Your task to perform on an android device: Empty the shopping cart on amazon.com. Add razer huntsman to the cart on amazon.com, then select checkout. Image 0: 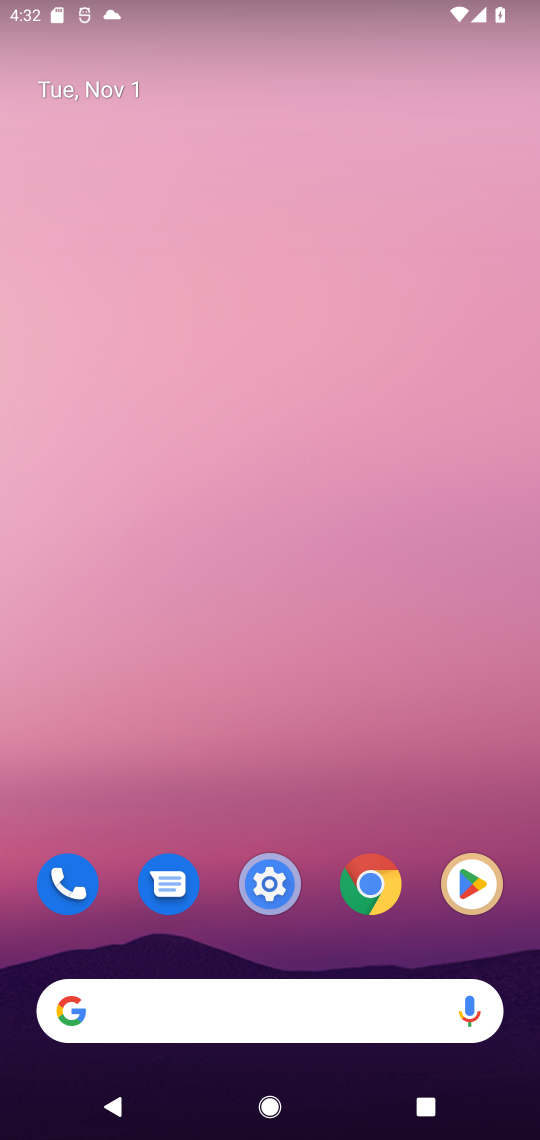
Step 0: click (110, 1014)
Your task to perform on an android device: Empty the shopping cart on amazon.com. Add razer huntsman to the cart on amazon.com, then select checkout. Image 1: 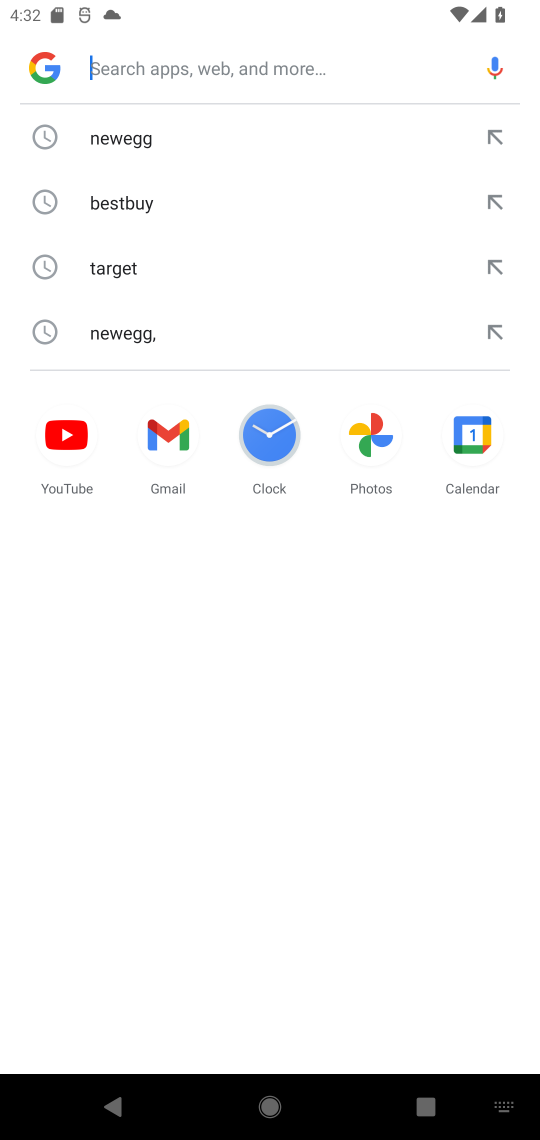
Step 1: type "amazon.com"
Your task to perform on an android device: Empty the shopping cart on amazon.com. Add razer huntsman to the cart on amazon.com, then select checkout. Image 2: 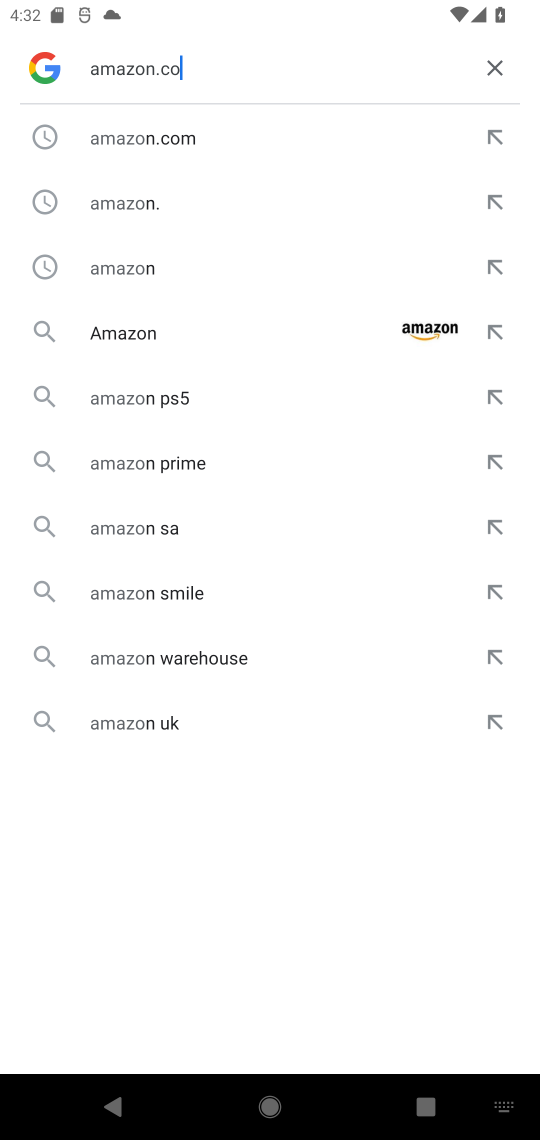
Step 2: press enter
Your task to perform on an android device: Empty the shopping cart on amazon.com. Add razer huntsman to the cart on amazon.com, then select checkout. Image 3: 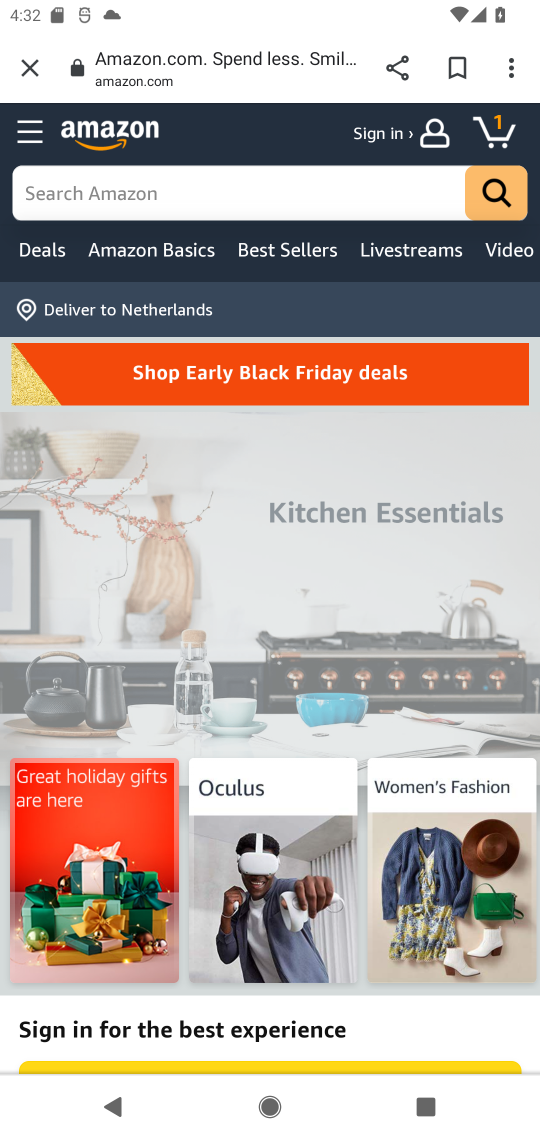
Step 3: click (489, 128)
Your task to perform on an android device: Empty the shopping cart on amazon.com. Add razer huntsman to the cart on amazon.com, then select checkout. Image 4: 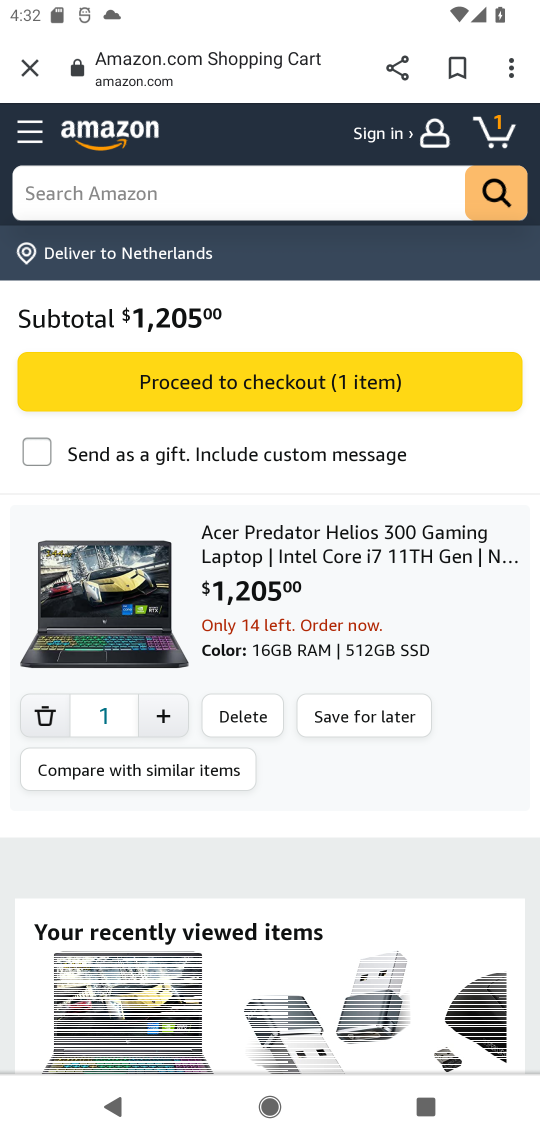
Step 4: click (41, 715)
Your task to perform on an android device: Empty the shopping cart on amazon.com. Add razer huntsman to the cart on amazon.com, then select checkout. Image 5: 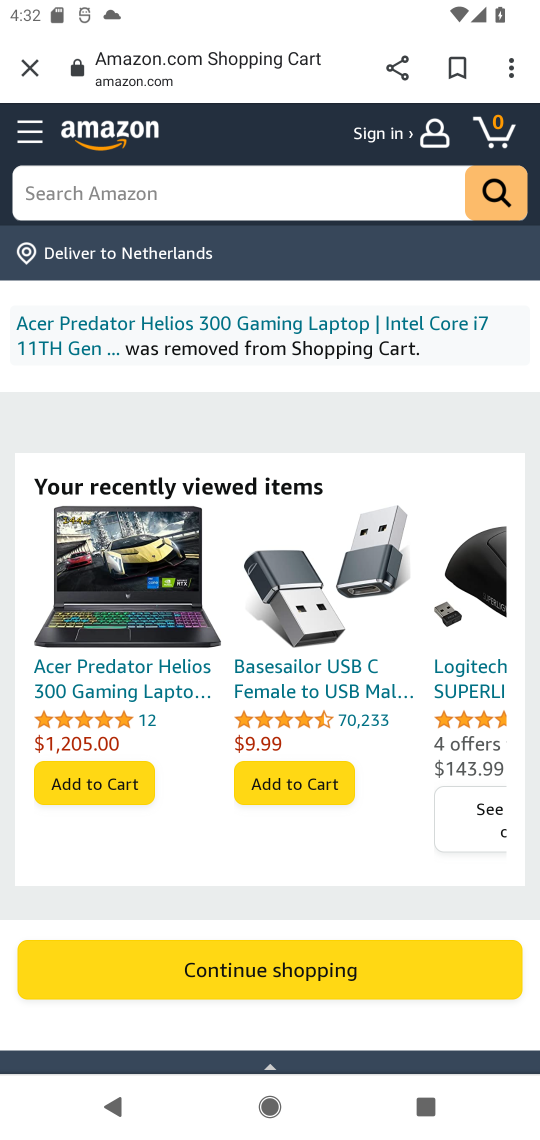
Step 5: click (211, 180)
Your task to perform on an android device: Empty the shopping cart on amazon.com. Add razer huntsman to the cart on amazon.com, then select checkout. Image 6: 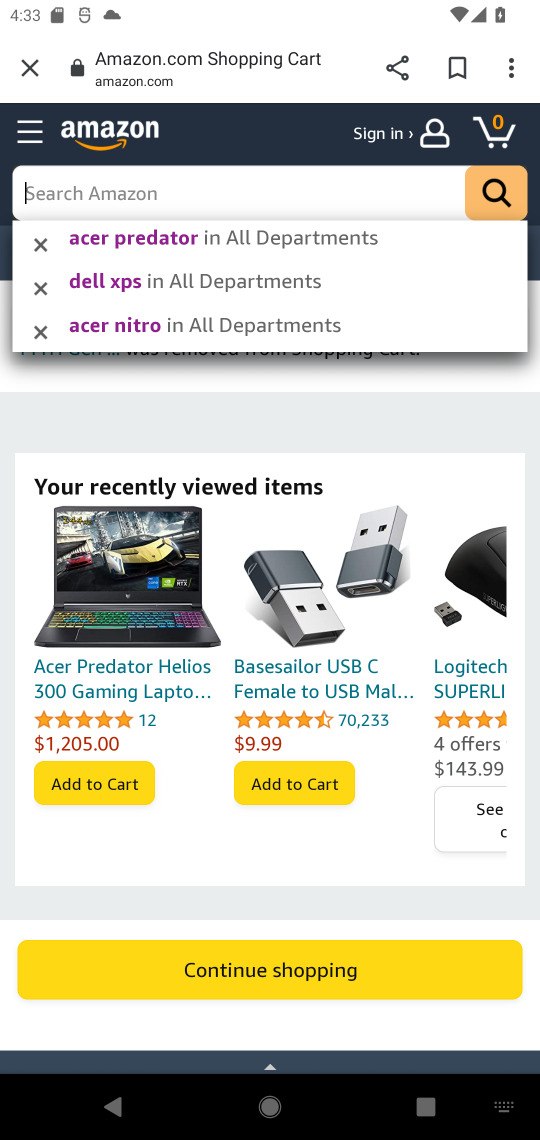
Step 6: type "razer huntsman"
Your task to perform on an android device: Empty the shopping cart on amazon.com. Add razer huntsman to the cart on amazon.com, then select checkout. Image 7: 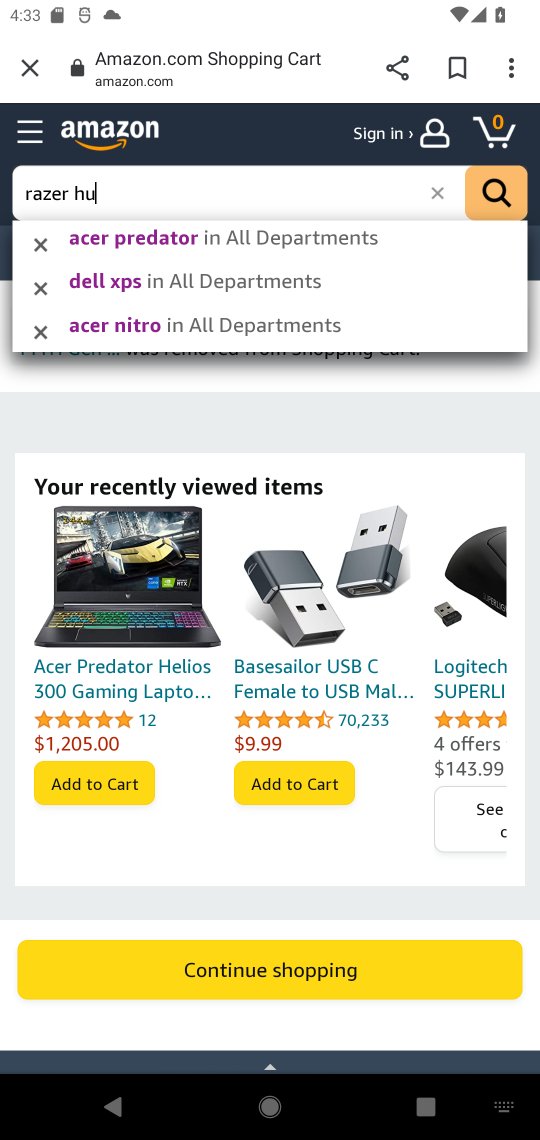
Step 7: press enter
Your task to perform on an android device: Empty the shopping cart on amazon.com. Add razer huntsman to the cart on amazon.com, then select checkout. Image 8: 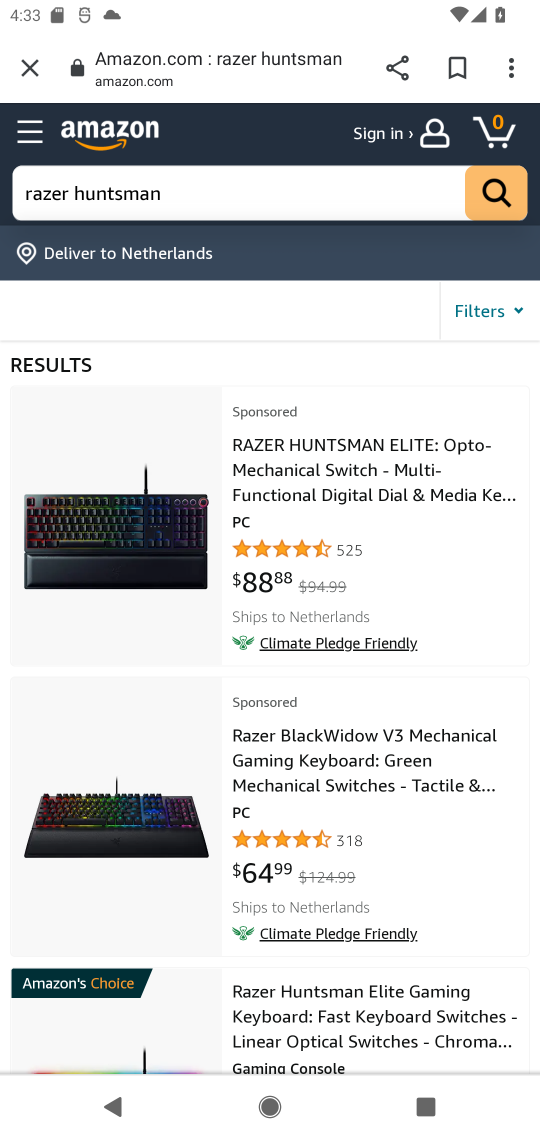
Step 8: click (312, 455)
Your task to perform on an android device: Empty the shopping cart on amazon.com. Add razer huntsman to the cart on amazon.com, then select checkout. Image 9: 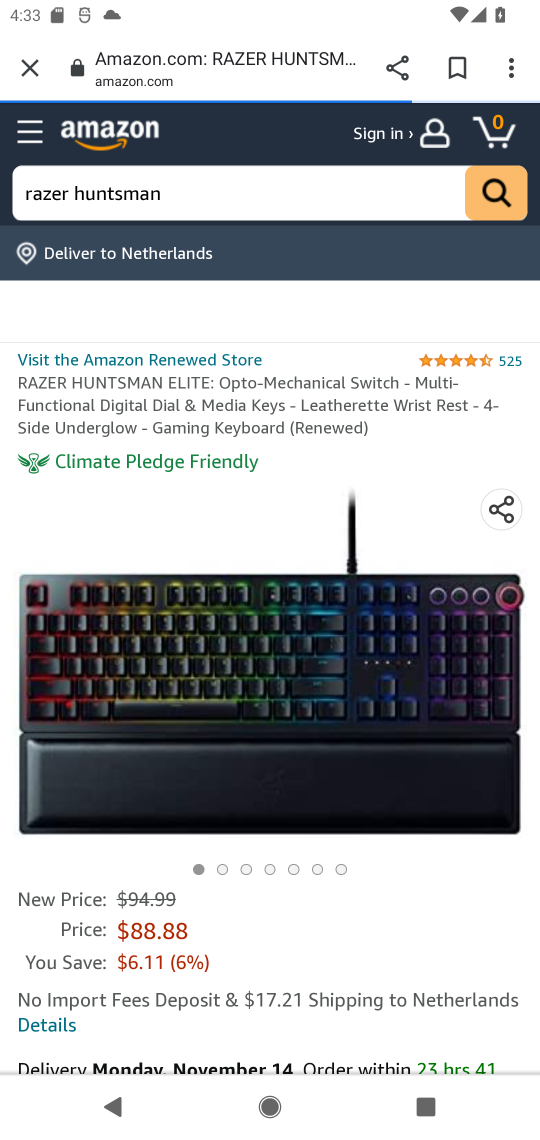
Step 9: drag from (354, 925) to (359, 512)
Your task to perform on an android device: Empty the shopping cart on amazon.com. Add razer huntsman to the cart on amazon.com, then select checkout. Image 10: 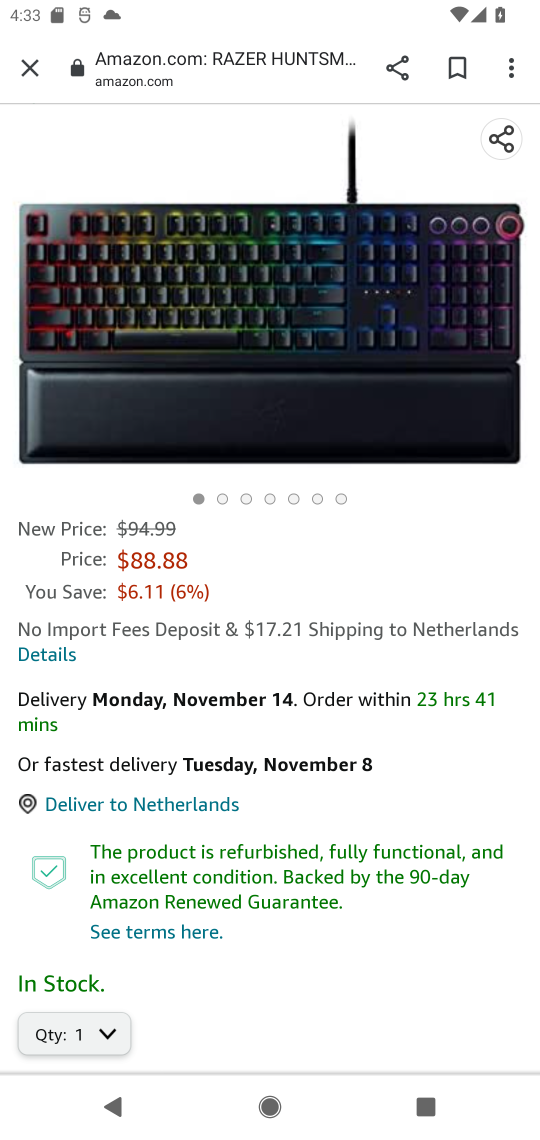
Step 10: drag from (313, 854) to (305, 517)
Your task to perform on an android device: Empty the shopping cart on amazon.com. Add razer huntsman to the cart on amazon.com, then select checkout. Image 11: 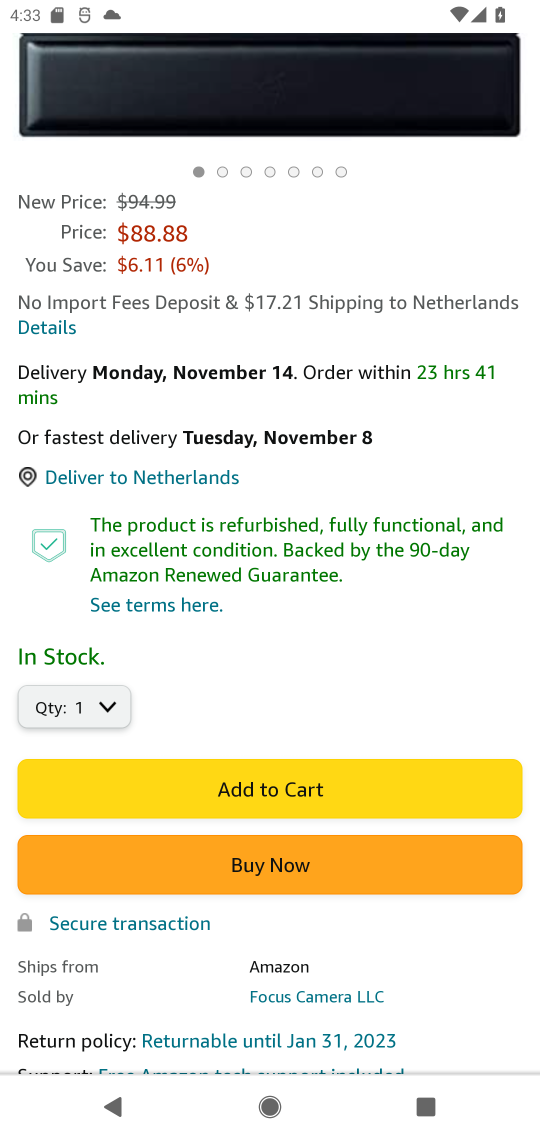
Step 11: click (235, 792)
Your task to perform on an android device: Empty the shopping cart on amazon.com. Add razer huntsman to the cart on amazon.com, then select checkout. Image 12: 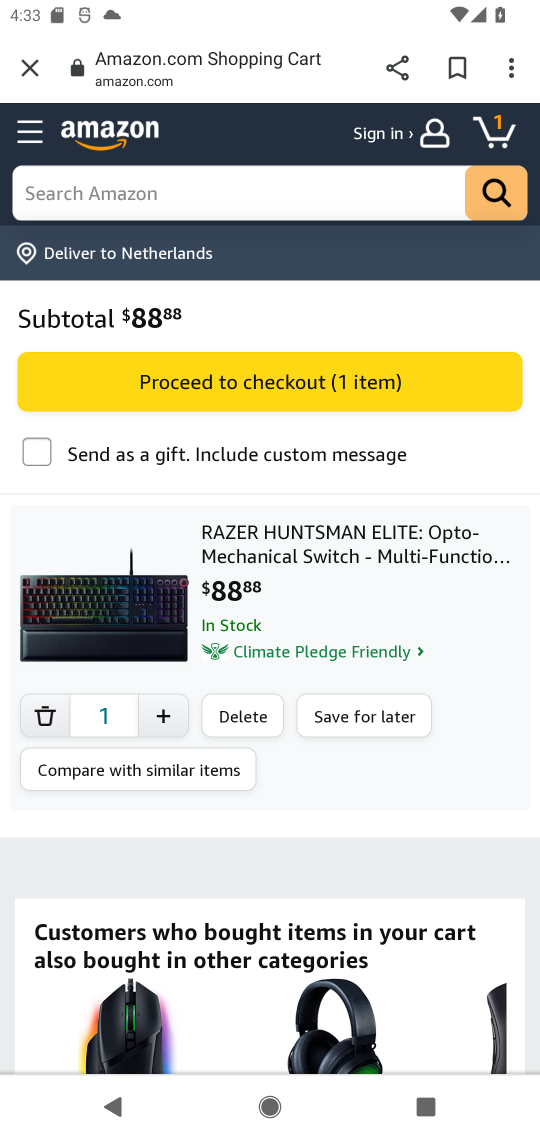
Step 12: click (377, 381)
Your task to perform on an android device: Empty the shopping cart on amazon.com. Add razer huntsman to the cart on amazon.com, then select checkout. Image 13: 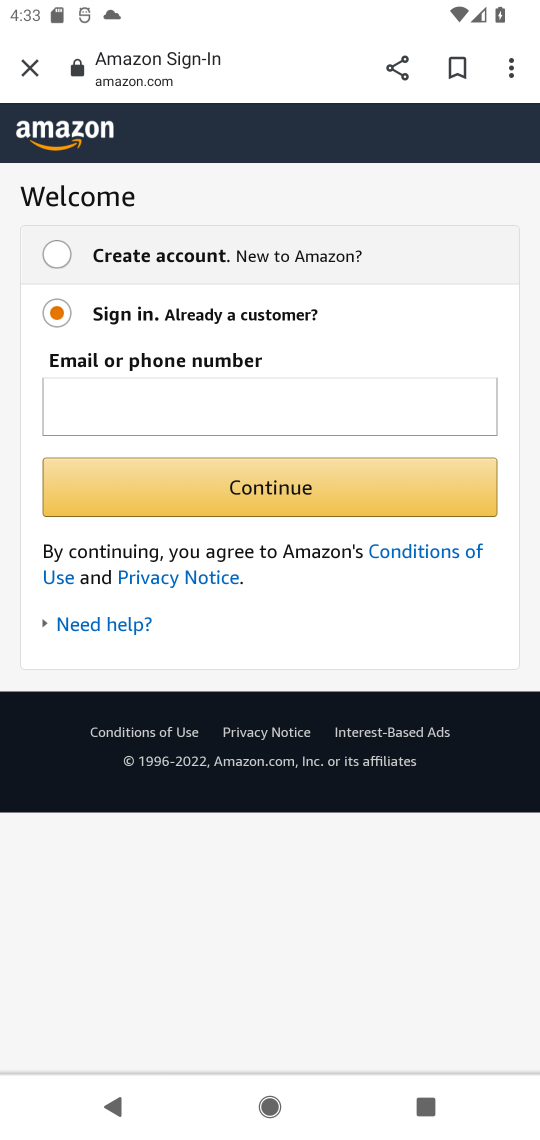
Step 13: task complete